Your task to perform on an android device: snooze an email in the gmail app Image 0: 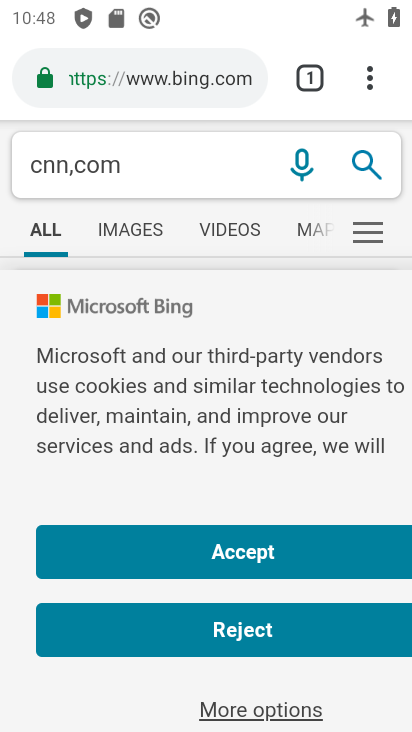
Step 0: press home button
Your task to perform on an android device: snooze an email in the gmail app Image 1: 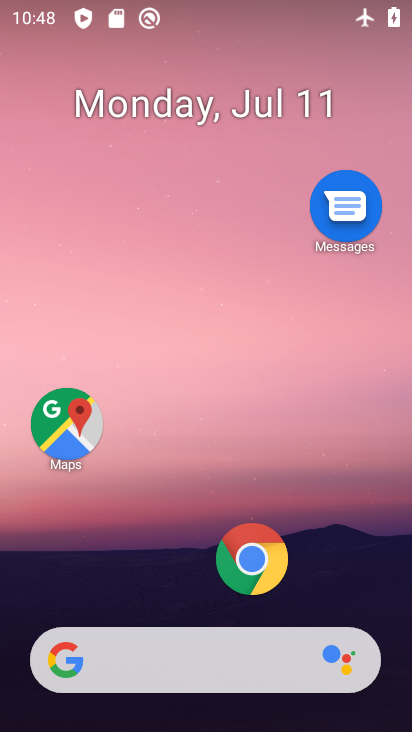
Step 1: drag from (364, 582) to (357, 221)
Your task to perform on an android device: snooze an email in the gmail app Image 2: 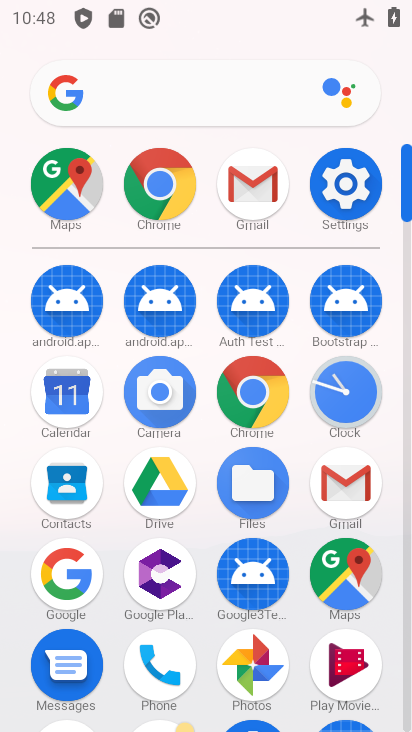
Step 2: click (342, 473)
Your task to perform on an android device: snooze an email in the gmail app Image 3: 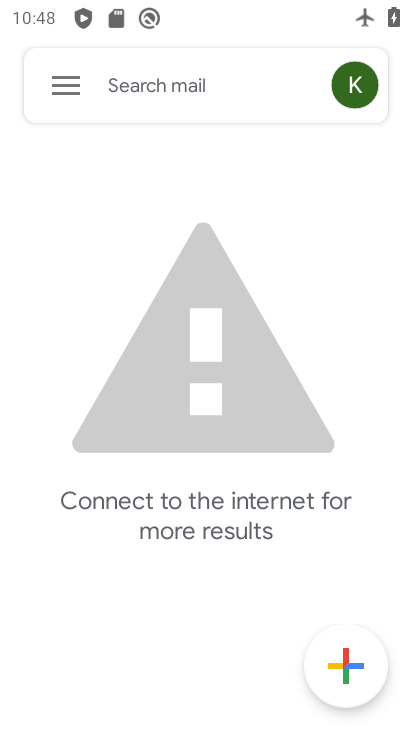
Step 3: click (65, 87)
Your task to perform on an android device: snooze an email in the gmail app Image 4: 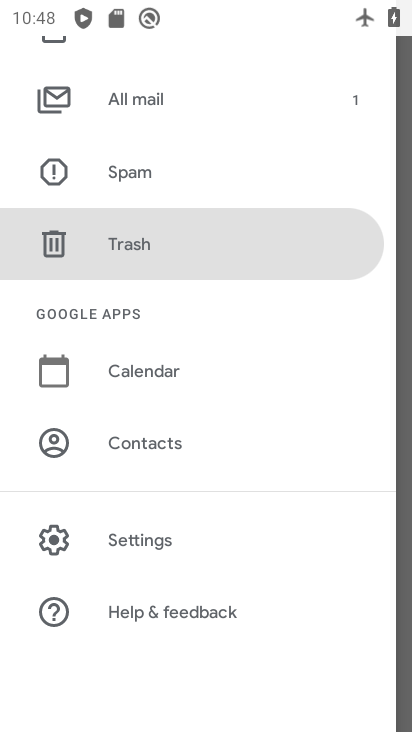
Step 4: drag from (282, 350) to (286, 443)
Your task to perform on an android device: snooze an email in the gmail app Image 5: 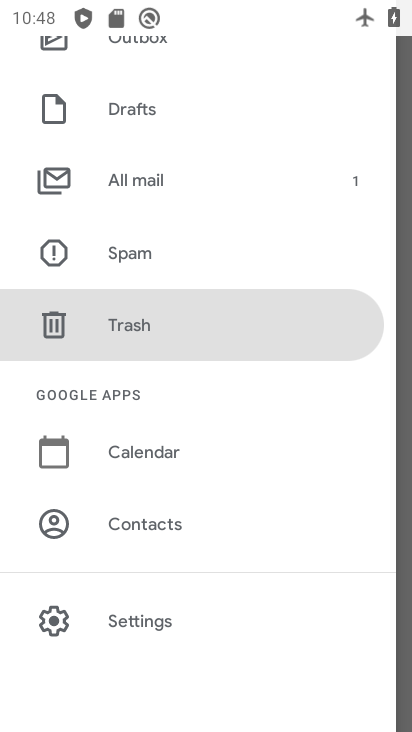
Step 5: drag from (291, 276) to (305, 394)
Your task to perform on an android device: snooze an email in the gmail app Image 6: 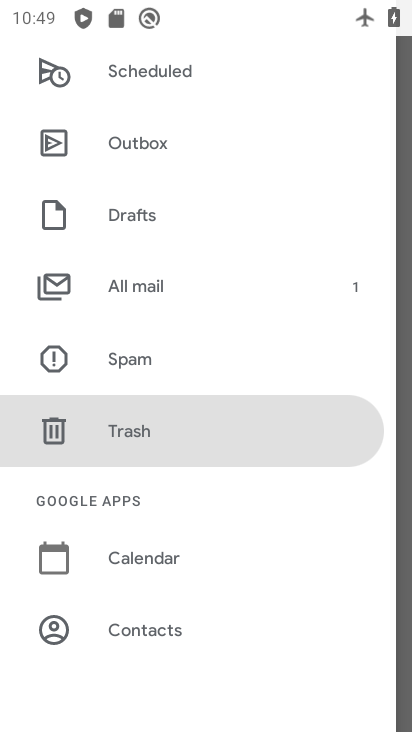
Step 6: drag from (302, 243) to (313, 364)
Your task to perform on an android device: snooze an email in the gmail app Image 7: 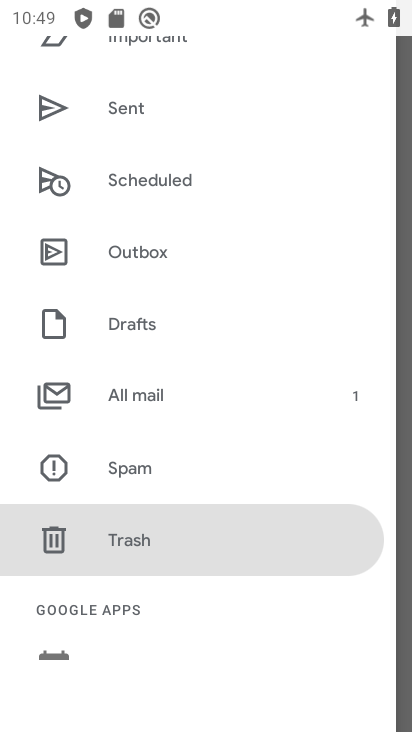
Step 7: drag from (308, 250) to (309, 373)
Your task to perform on an android device: snooze an email in the gmail app Image 8: 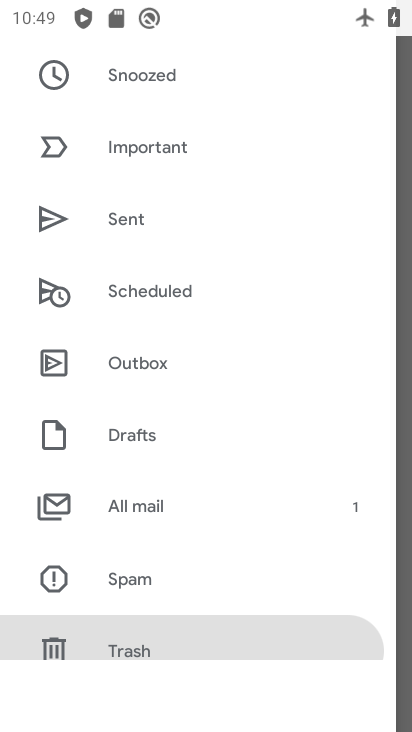
Step 8: drag from (310, 236) to (307, 355)
Your task to perform on an android device: snooze an email in the gmail app Image 9: 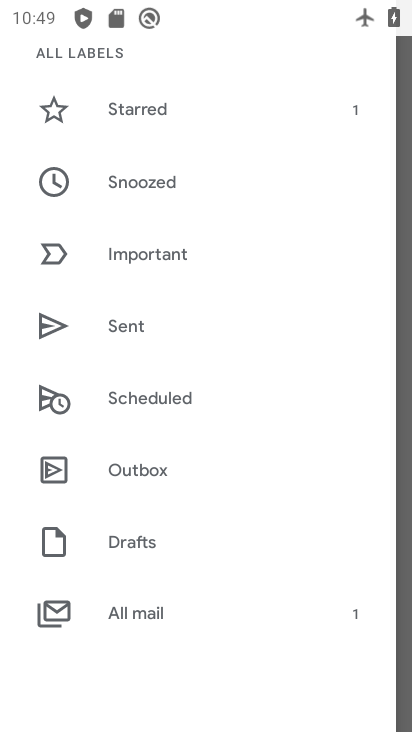
Step 9: drag from (304, 213) to (332, 516)
Your task to perform on an android device: snooze an email in the gmail app Image 10: 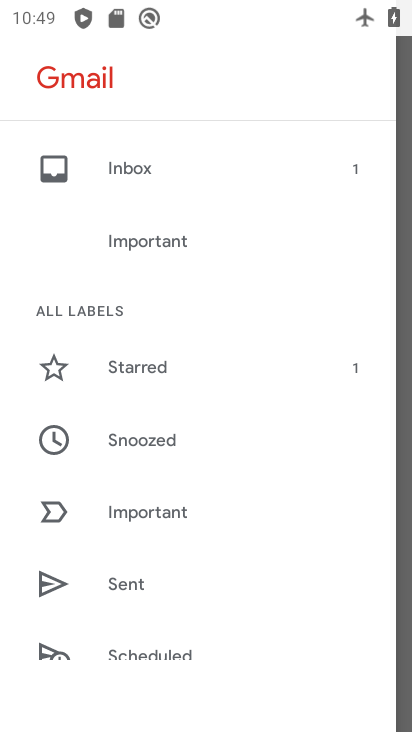
Step 10: click (202, 445)
Your task to perform on an android device: snooze an email in the gmail app Image 11: 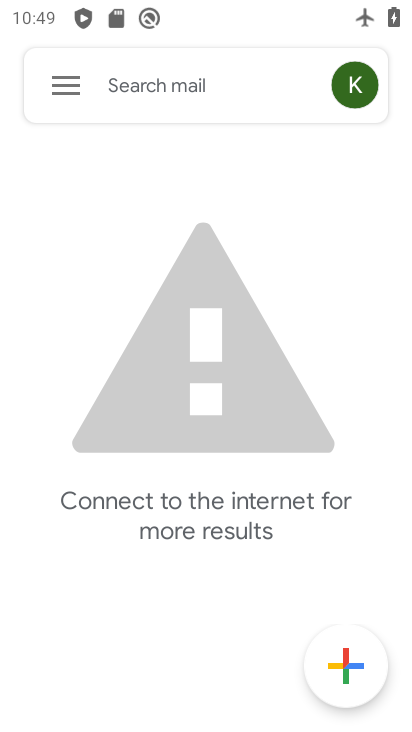
Step 11: task complete